Your task to perform on an android device: check android version Image 0: 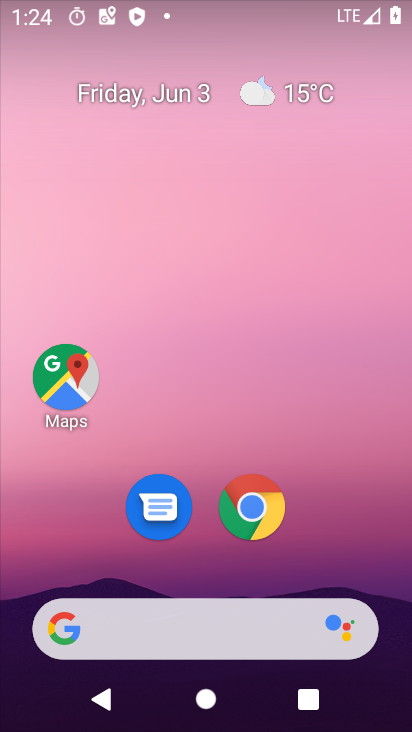
Step 0: drag from (392, 623) to (362, 95)
Your task to perform on an android device: check android version Image 1: 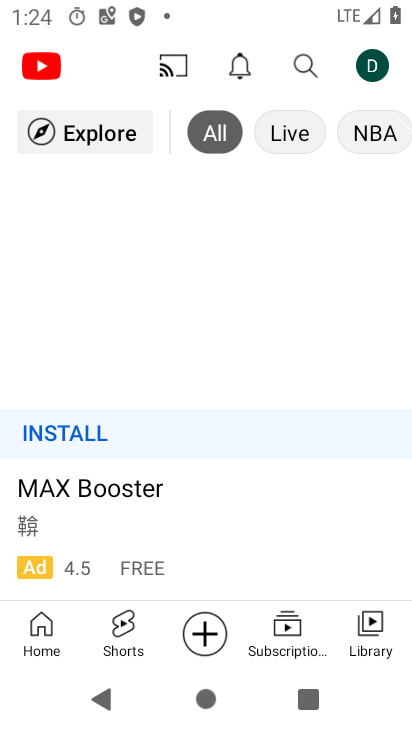
Step 1: press home button
Your task to perform on an android device: check android version Image 2: 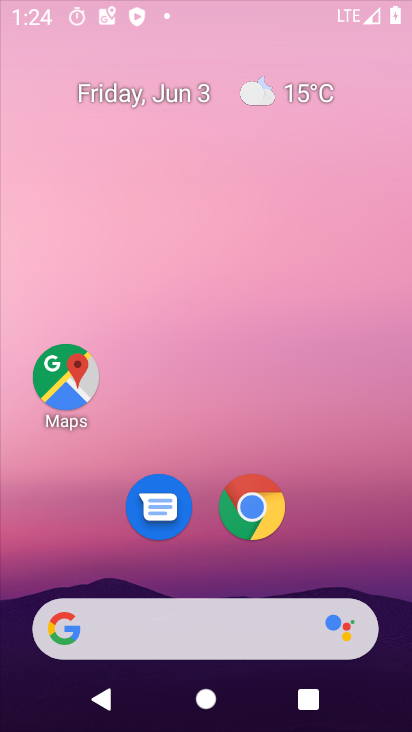
Step 2: drag from (396, 448) to (291, 2)
Your task to perform on an android device: check android version Image 3: 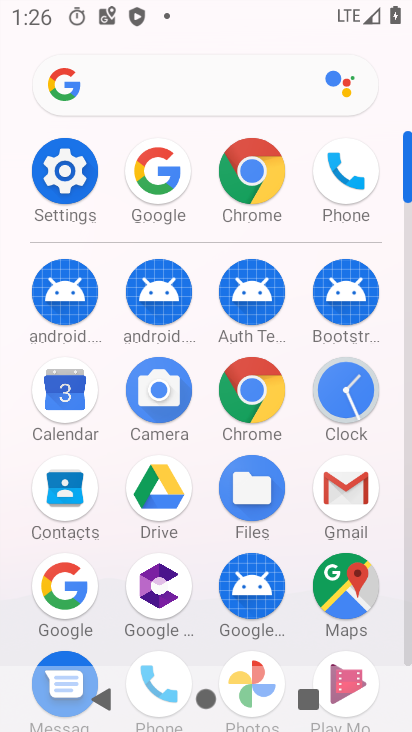
Step 3: click (43, 166)
Your task to perform on an android device: check android version Image 4: 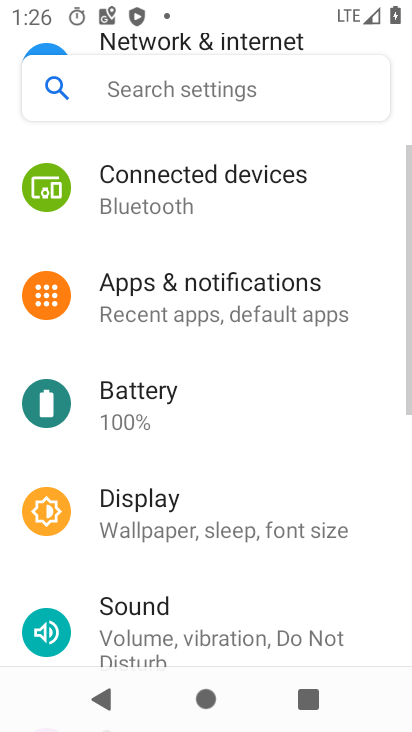
Step 4: drag from (151, 607) to (247, 1)
Your task to perform on an android device: check android version Image 5: 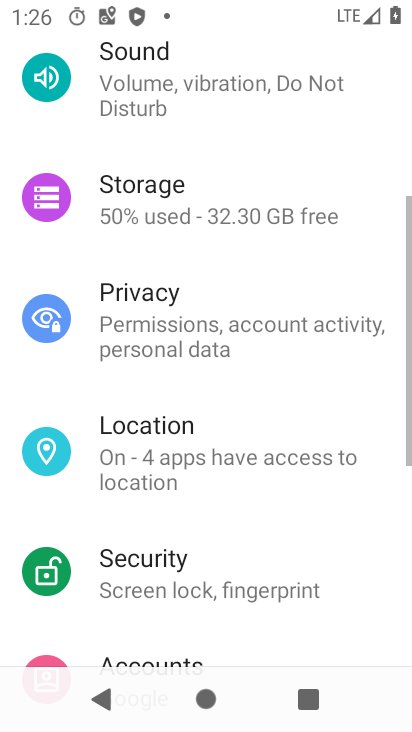
Step 5: click (122, 587)
Your task to perform on an android device: check android version Image 6: 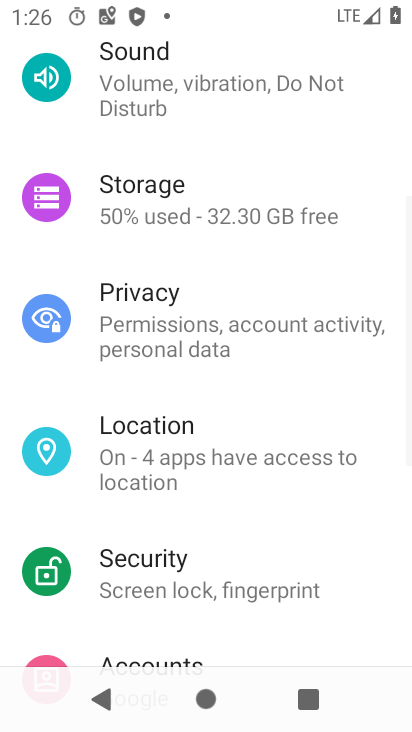
Step 6: drag from (215, 416) to (247, 5)
Your task to perform on an android device: check android version Image 7: 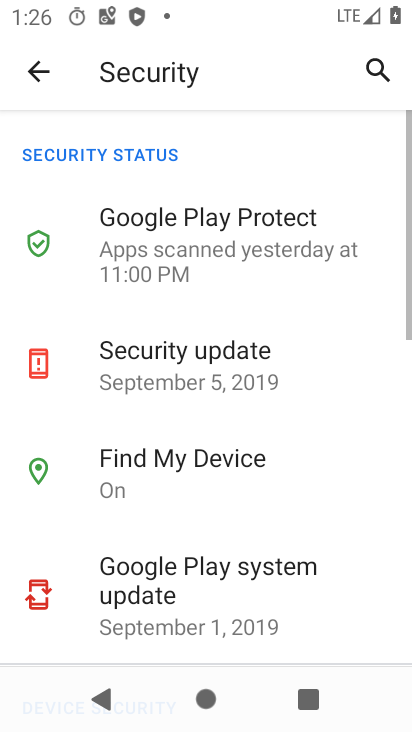
Step 7: press back button
Your task to perform on an android device: check android version Image 8: 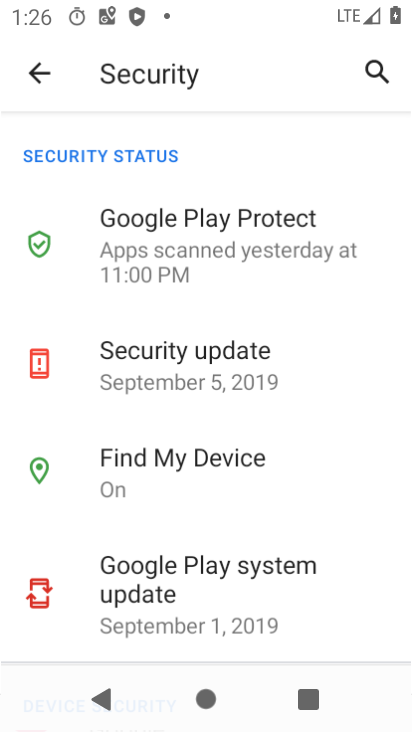
Step 8: drag from (282, 606) to (301, 15)
Your task to perform on an android device: check android version Image 9: 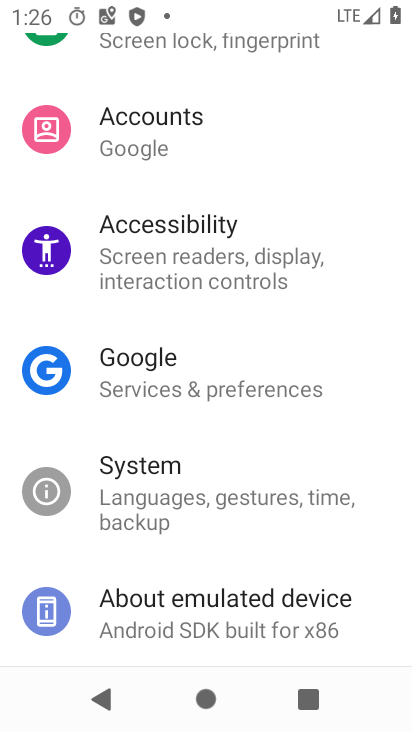
Step 9: click (227, 629)
Your task to perform on an android device: check android version Image 10: 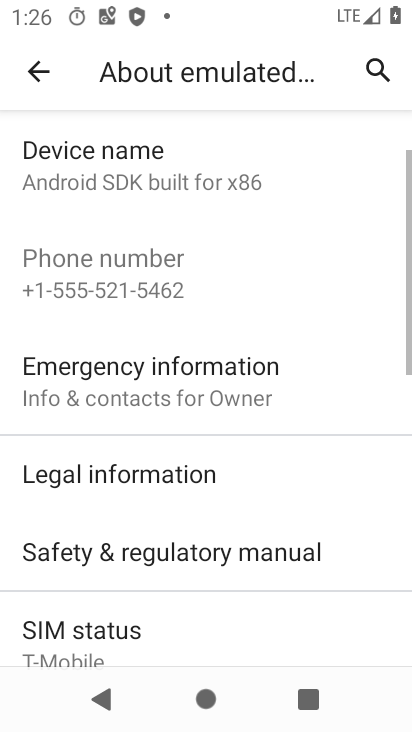
Step 10: drag from (51, 629) to (184, 30)
Your task to perform on an android device: check android version Image 11: 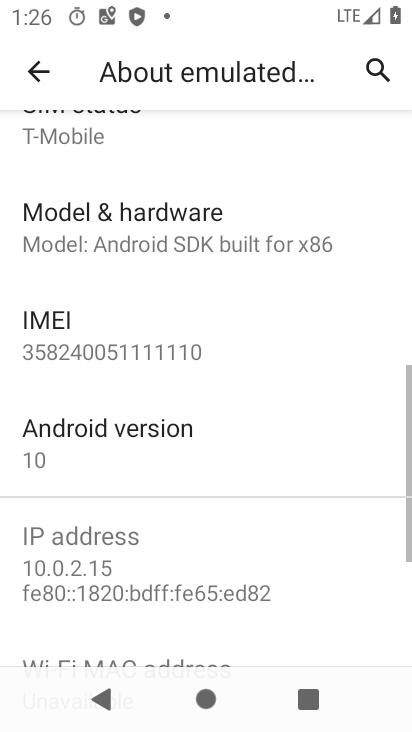
Step 11: click (137, 413)
Your task to perform on an android device: check android version Image 12: 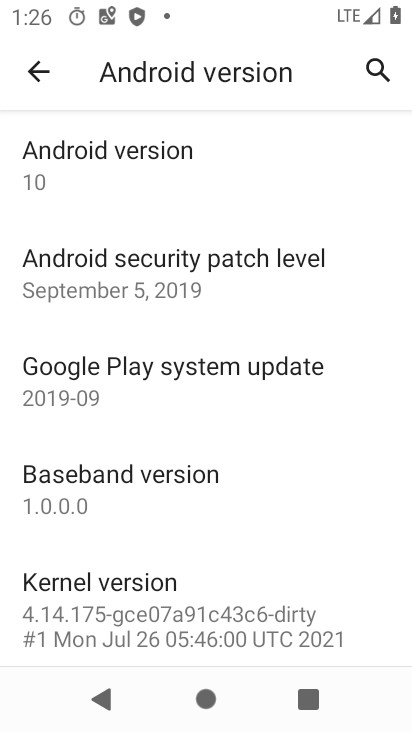
Step 12: task complete